Your task to perform on an android device: set the stopwatch Image 0: 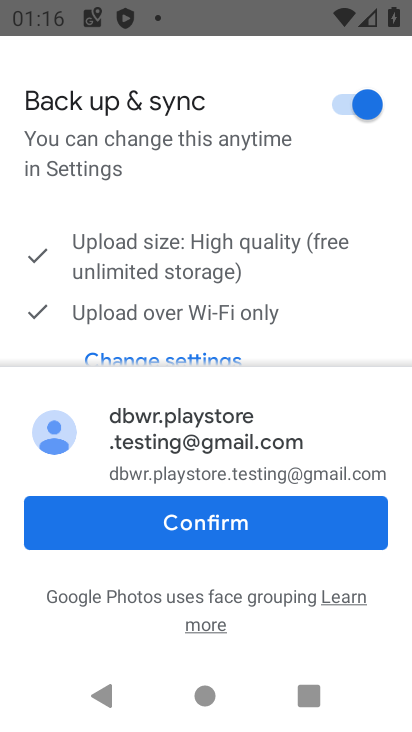
Step 0: press home button
Your task to perform on an android device: set the stopwatch Image 1: 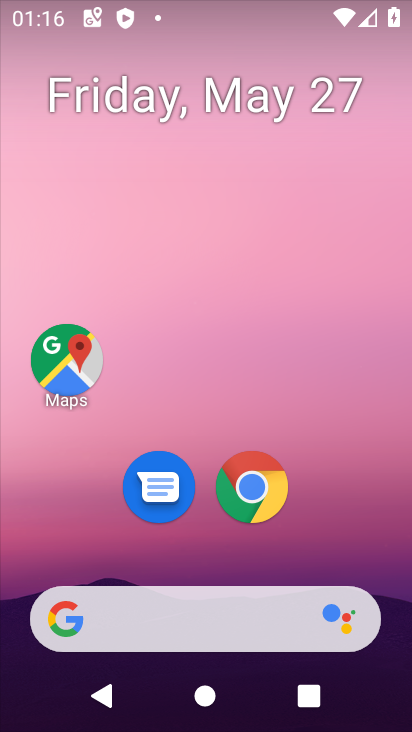
Step 1: drag from (165, 731) to (233, 2)
Your task to perform on an android device: set the stopwatch Image 2: 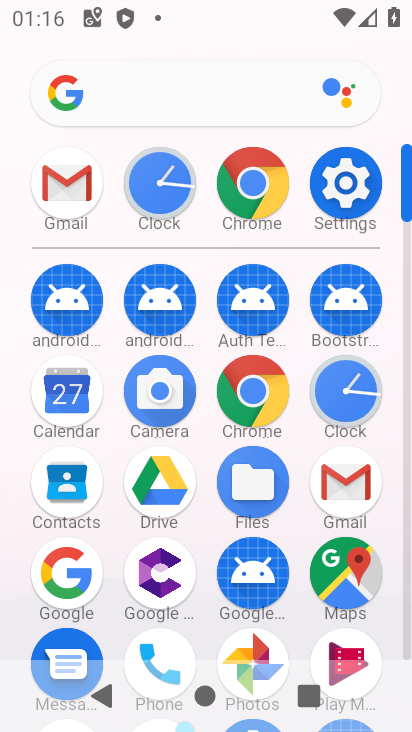
Step 2: click (140, 195)
Your task to perform on an android device: set the stopwatch Image 3: 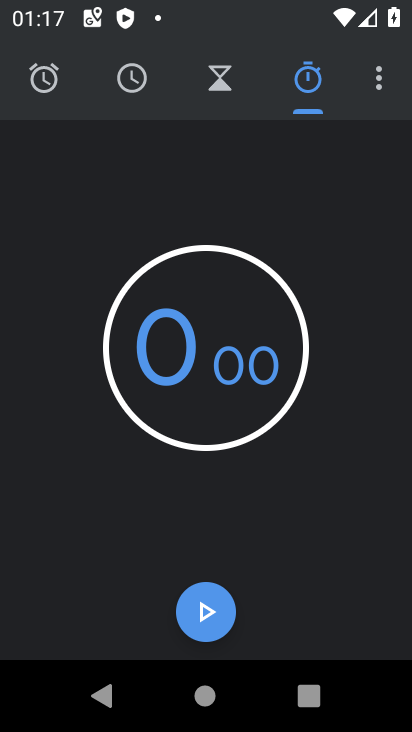
Step 3: click (213, 630)
Your task to perform on an android device: set the stopwatch Image 4: 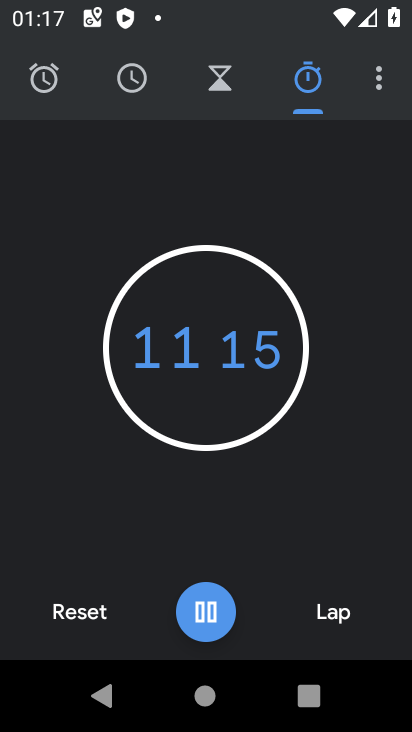
Step 4: click (212, 628)
Your task to perform on an android device: set the stopwatch Image 5: 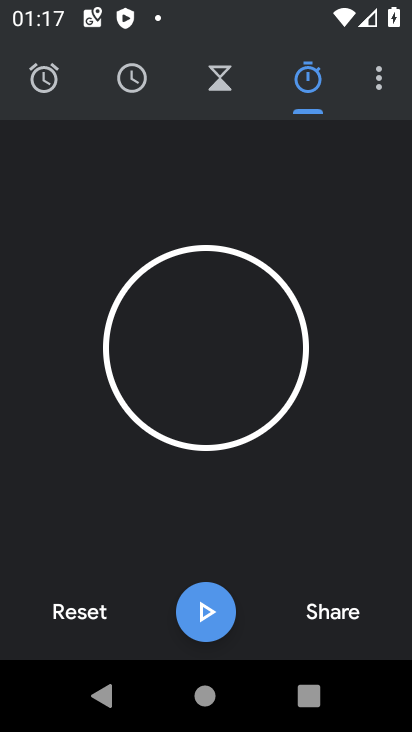
Step 5: click (77, 607)
Your task to perform on an android device: set the stopwatch Image 6: 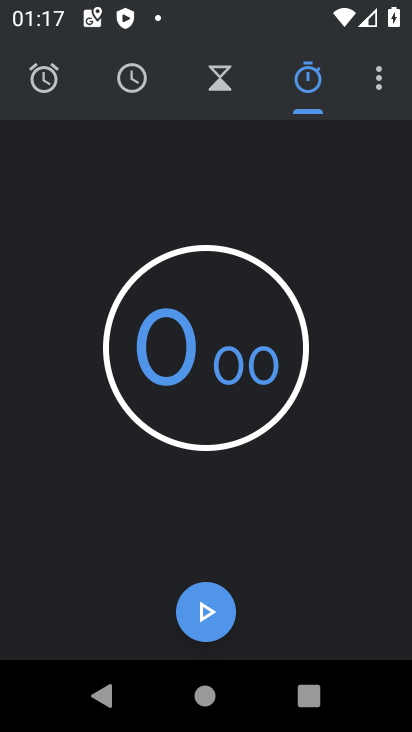
Step 6: task complete